Your task to perform on an android device: toggle javascript in the chrome app Image 0: 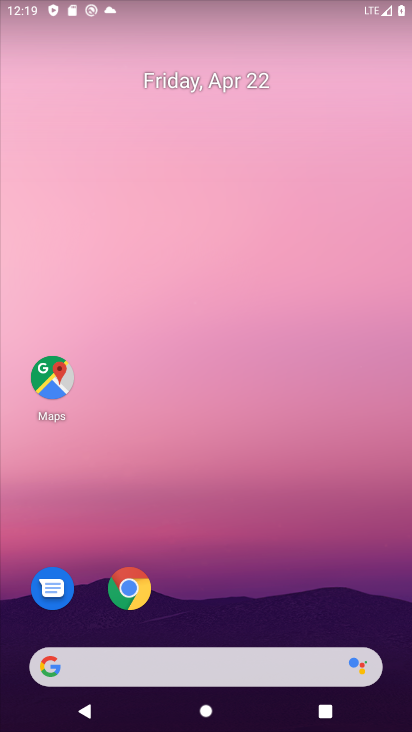
Step 0: drag from (268, 685) to (355, 148)
Your task to perform on an android device: toggle javascript in the chrome app Image 1: 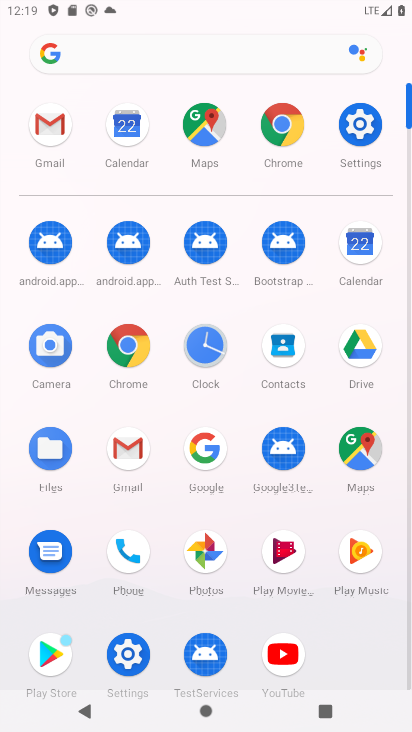
Step 1: click (288, 122)
Your task to perform on an android device: toggle javascript in the chrome app Image 2: 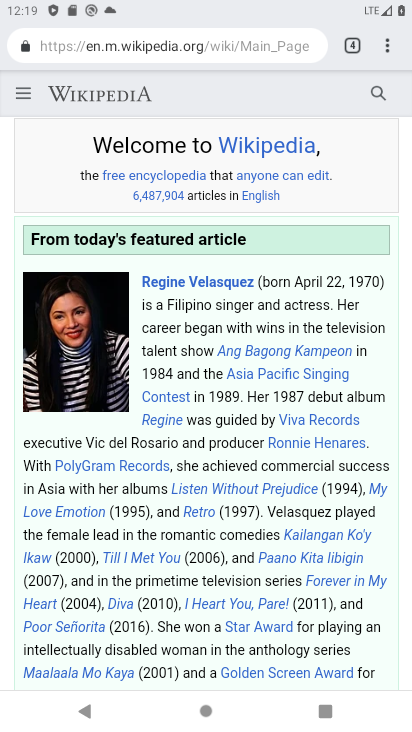
Step 2: click (378, 53)
Your task to perform on an android device: toggle javascript in the chrome app Image 3: 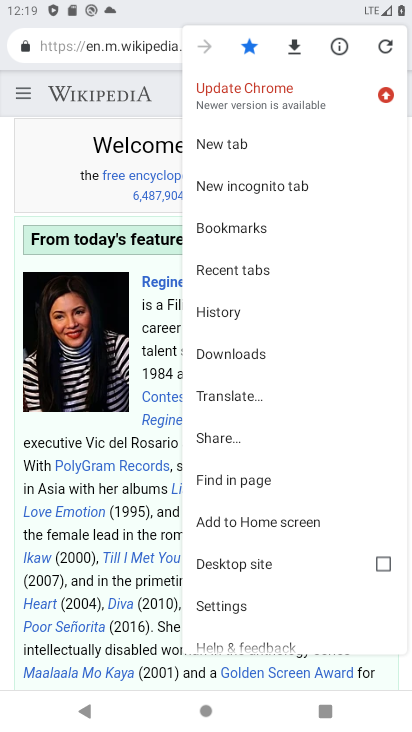
Step 3: click (229, 599)
Your task to perform on an android device: toggle javascript in the chrome app Image 4: 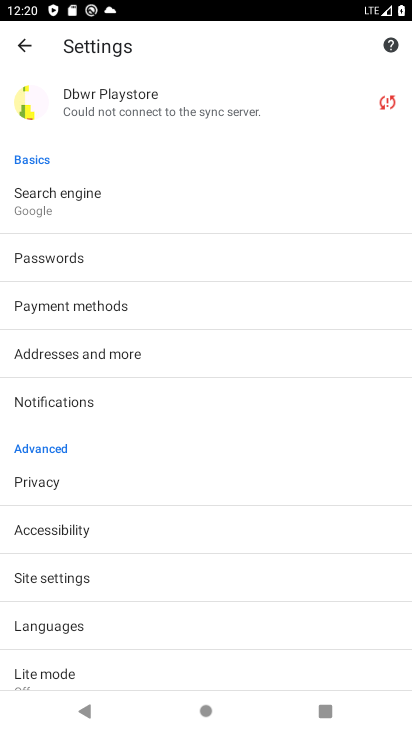
Step 4: click (70, 572)
Your task to perform on an android device: toggle javascript in the chrome app Image 5: 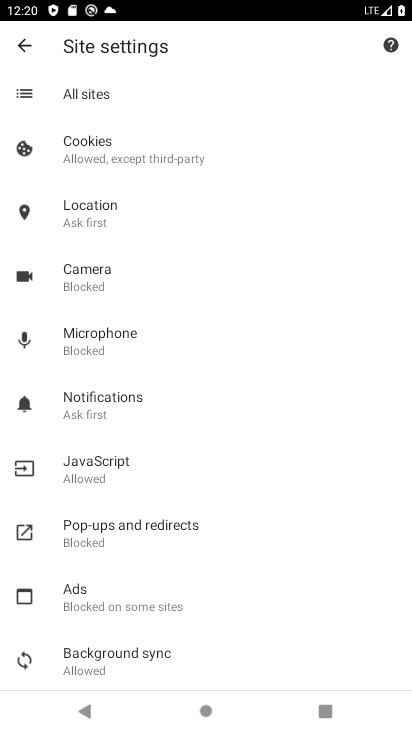
Step 5: click (112, 473)
Your task to perform on an android device: toggle javascript in the chrome app Image 6: 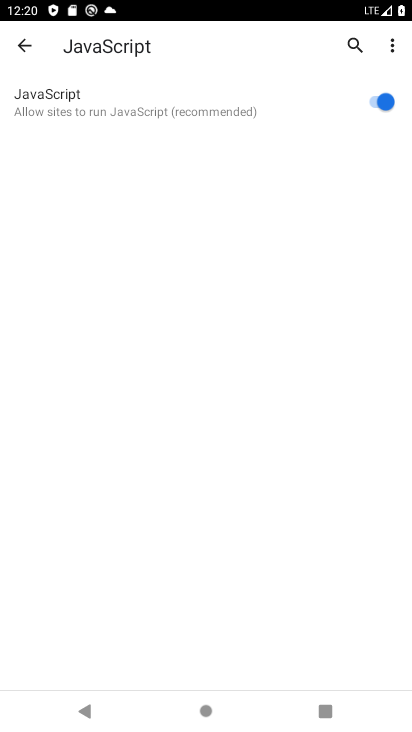
Step 6: task complete